Your task to perform on an android device: add a contact in the contacts app Image 0: 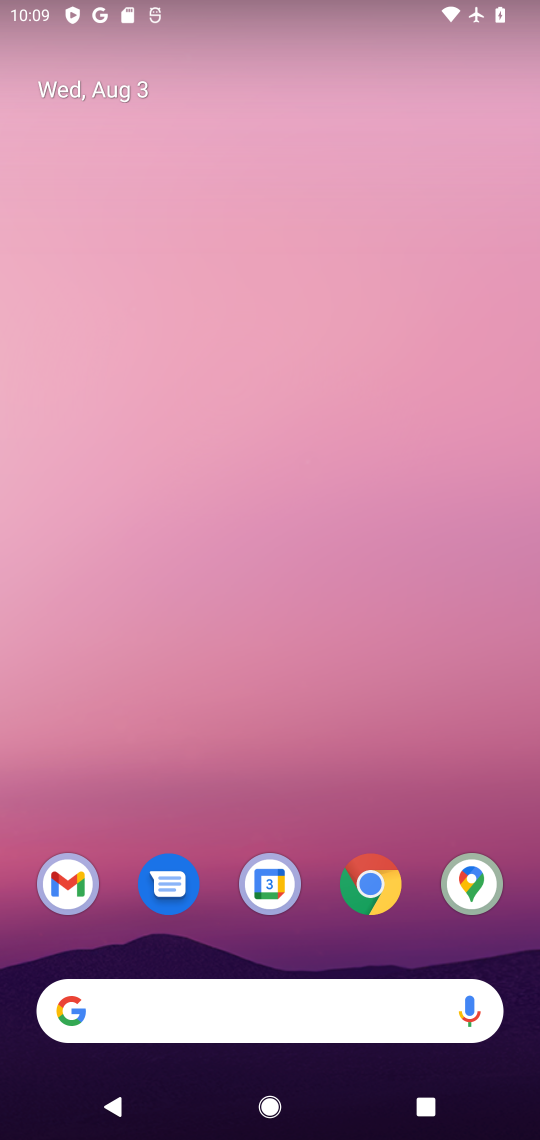
Step 0: drag from (322, 914) to (354, 316)
Your task to perform on an android device: add a contact in the contacts app Image 1: 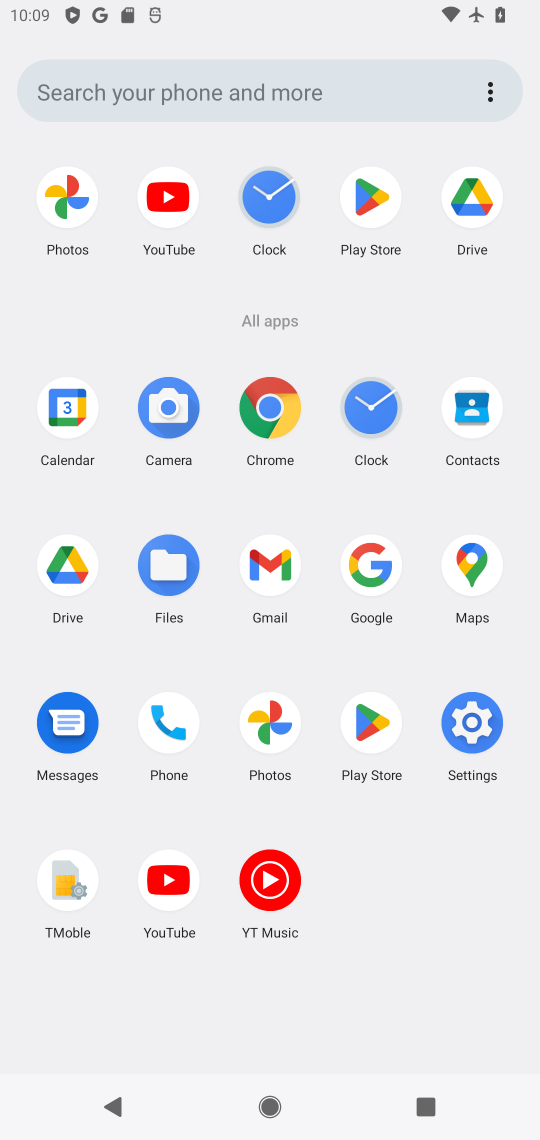
Step 1: click (471, 411)
Your task to perform on an android device: add a contact in the contacts app Image 2: 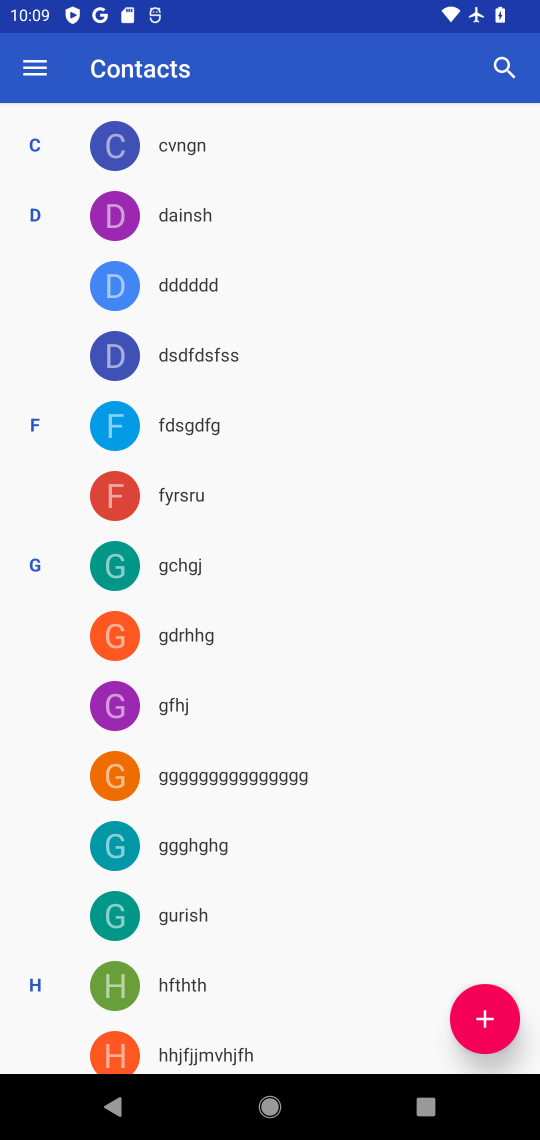
Step 2: click (490, 1013)
Your task to perform on an android device: add a contact in the contacts app Image 3: 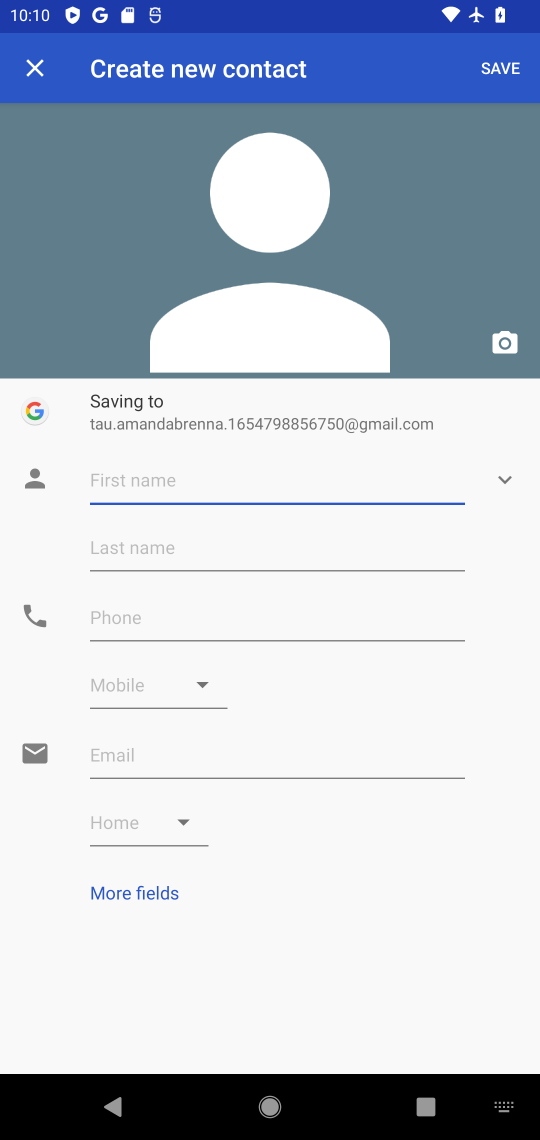
Step 3: type "ghjhjhj"
Your task to perform on an android device: add a contact in the contacts app Image 4: 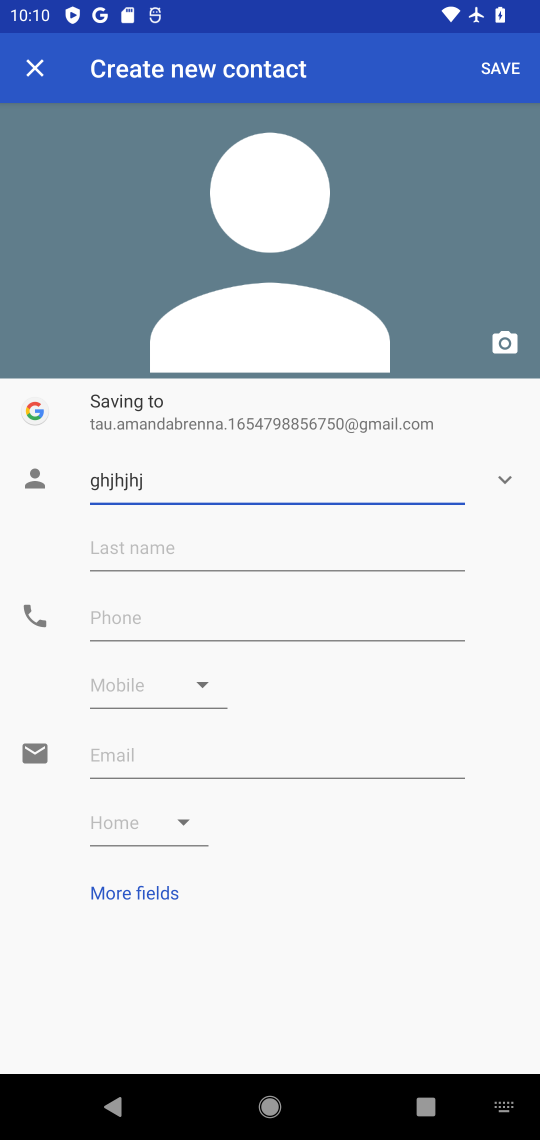
Step 4: click (212, 599)
Your task to perform on an android device: add a contact in the contacts app Image 5: 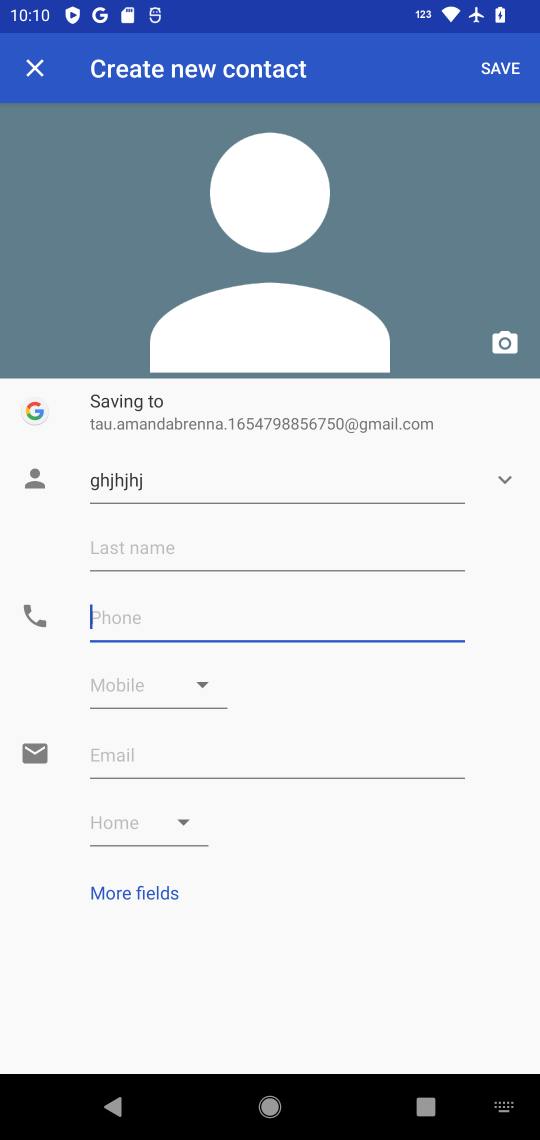
Step 5: type "76767676"
Your task to perform on an android device: add a contact in the contacts app Image 6: 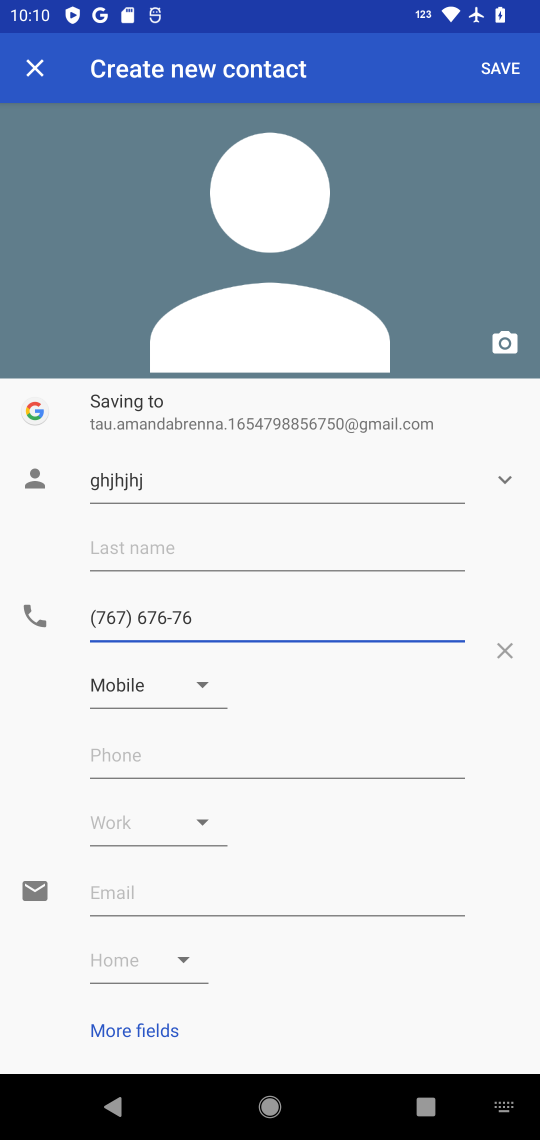
Step 6: click (508, 69)
Your task to perform on an android device: add a contact in the contacts app Image 7: 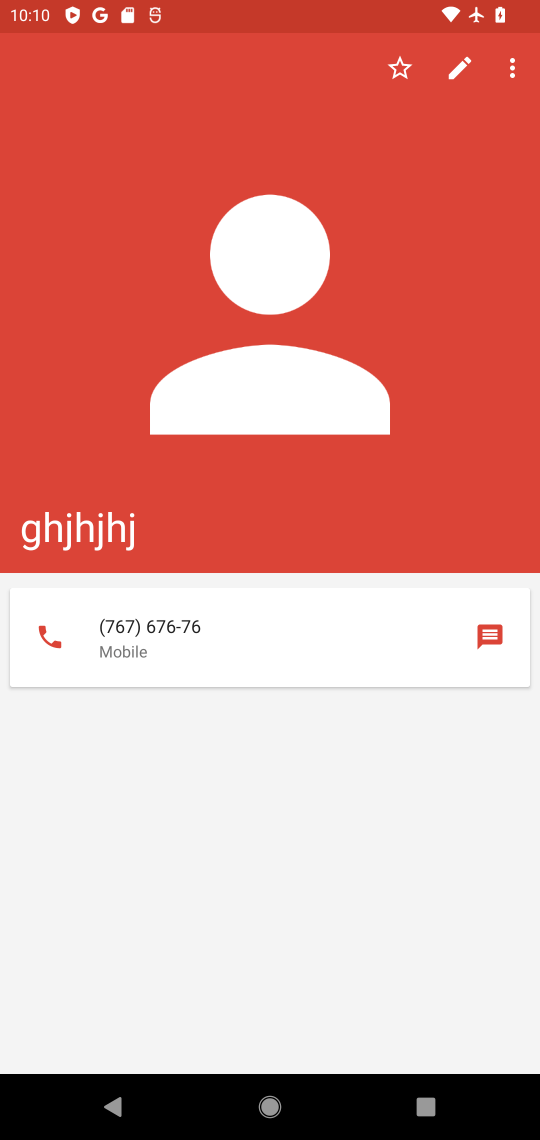
Step 7: task complete